Your task to perform on an android device: Go to CNN.com Image 0: 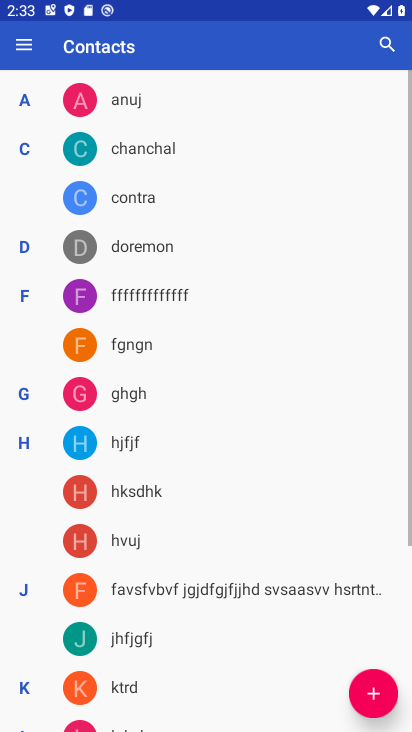
Step 0: press home button
Your task to perform on an android device: Go to CNN.com Image 1: 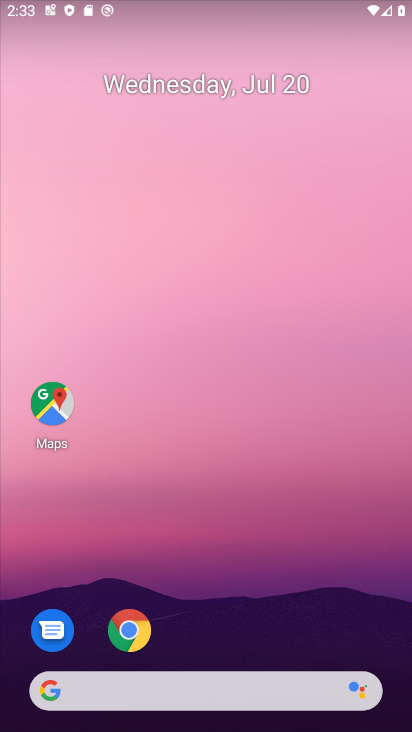
Step 1: drag from (365, 609) to (370, 143)
Your task to perform on an android device: Go to CNN.com Image 2: 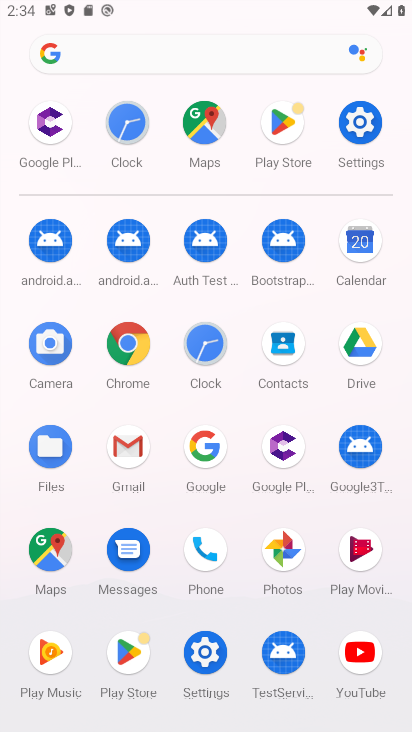
Step 2: click (132, 352)
Your task to perform on an android device: Go to CNN.com Image 3: 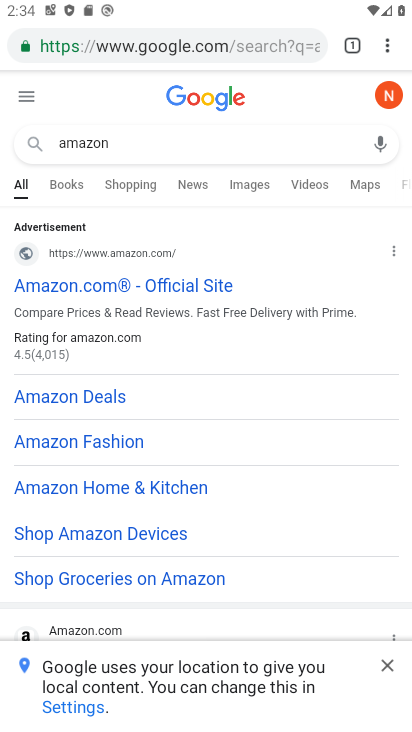
Step 3: click (228, 47)
Your task to perform on an android device: Go to CNN.com Image 4: 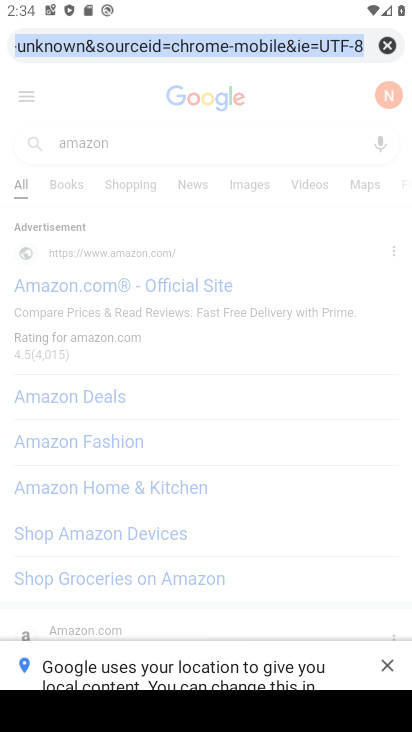
Step 4: type "cnn.com"
Your task to perform on an android device: Go to CNN.com Image 5: 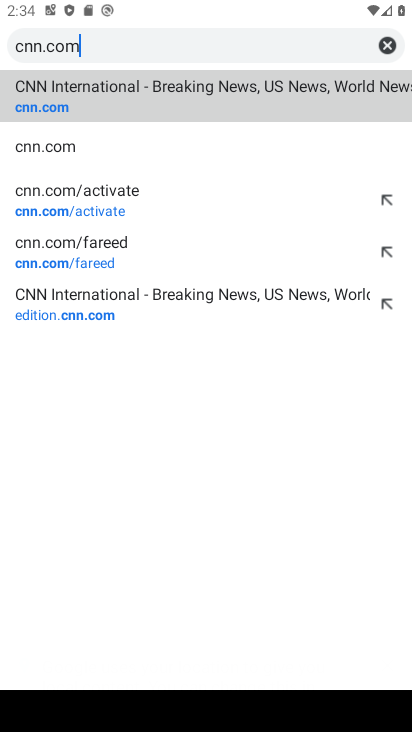
Step 5: click (156, 142)
Your task to perform on an android device: Go to CNN.com Image 6: 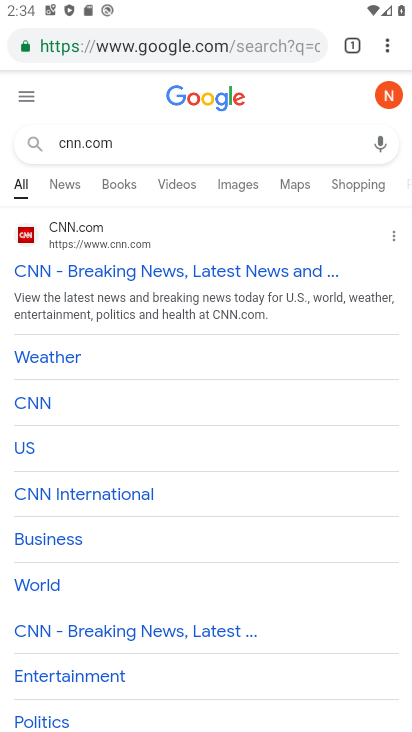
Step 6: task complete